Your task to perform on an android device: choose inbox layout in the gmail app Image 0: 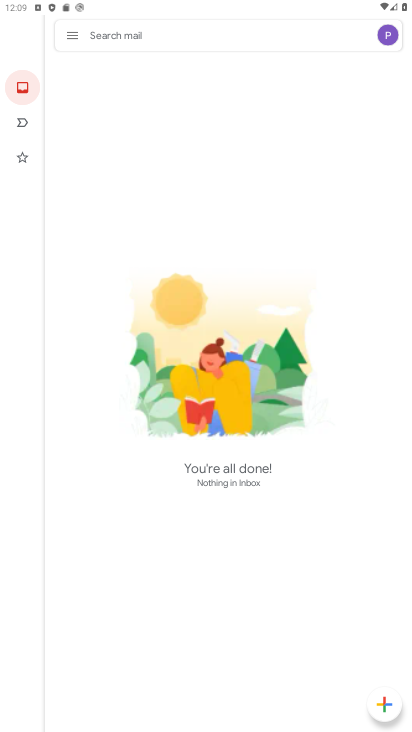
Step 0: press home button
Your task to perform on an android device: choose inbox layout in the gmail app Image 1: 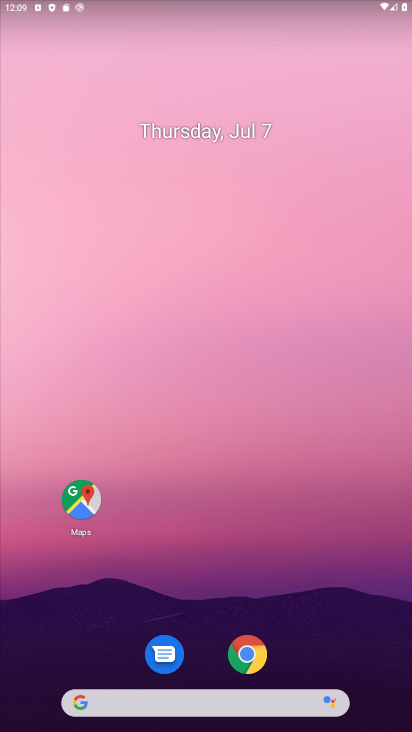
Step 1: drag from (209, 682) to (157, 6)
Your task to perform on an android device: choose inbox layout in the gmail app Image 2: 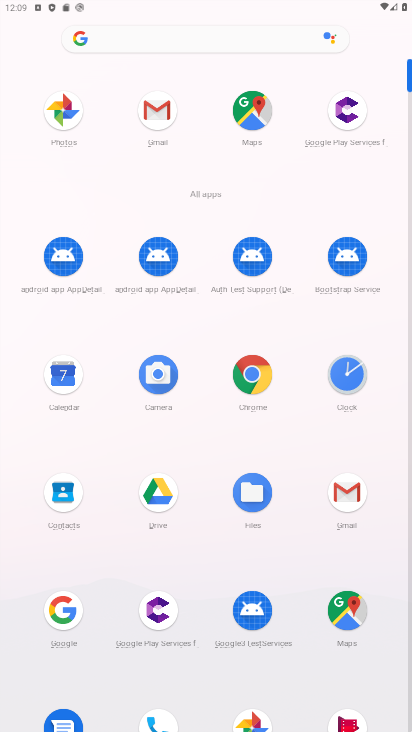
Step 2: click (156, 105)
Your task to perform on an android device: choose inbox layout in the gmail app Image 3: 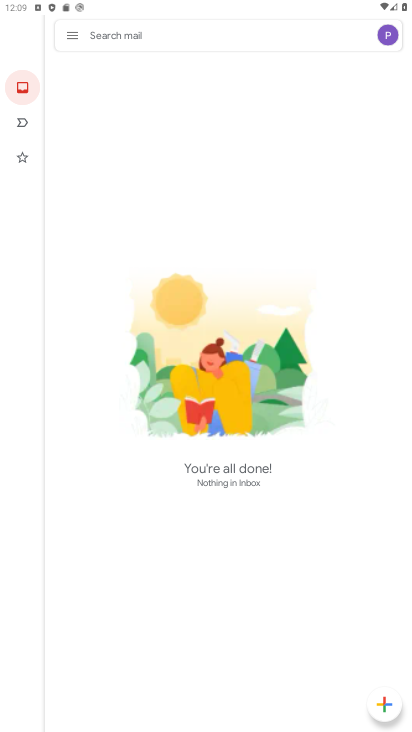
Step 3: click (65, 37)
Your task to perform on an android device: choose inbox layout in the gmail app Image 4: 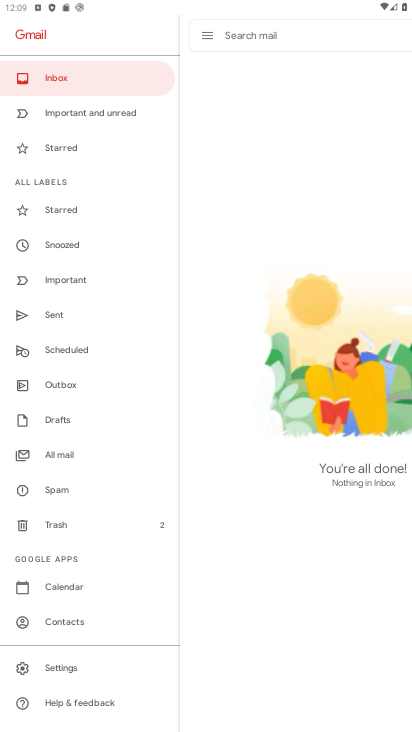
Step 4: click (70, 668)
Your task to perform on an android device: choose inbox layout in the gmail app Image 5: 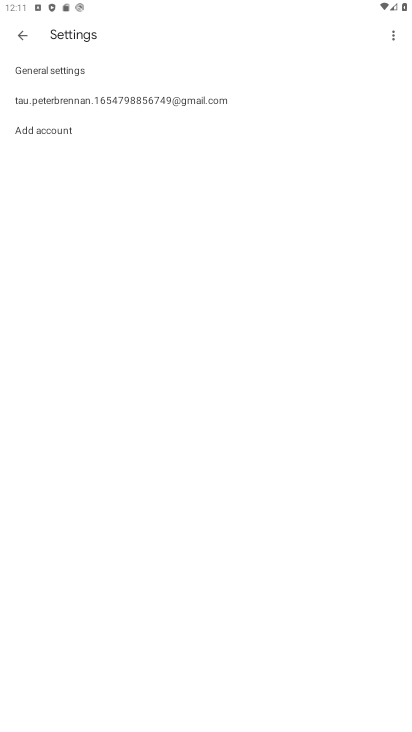
Step 5: click (184, 105)
Your task to perform on an android device: choose inbox layout in the gmail app Image 6: 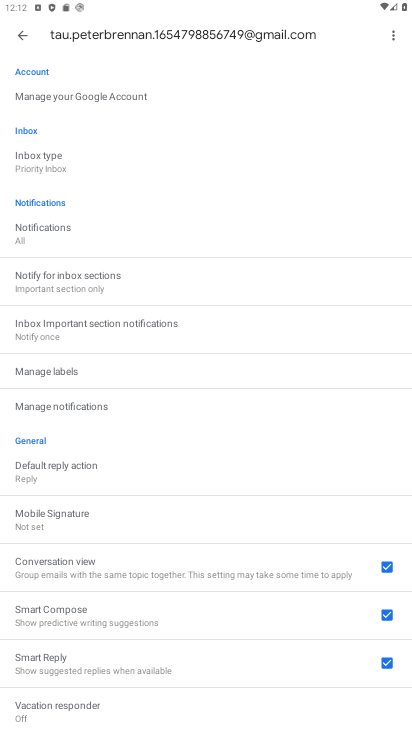
Step 6: task complete